Your task to perform on an android device: turn on wifi Image 0: 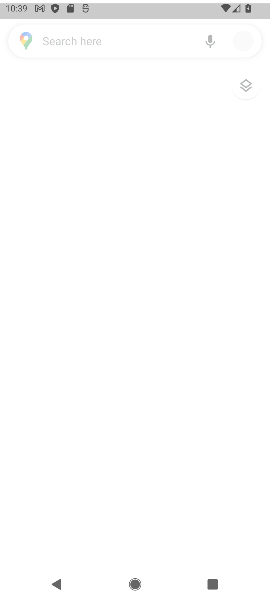
Step 0: press home button
Your task to perform on an android device: turn on wifi Image 1: 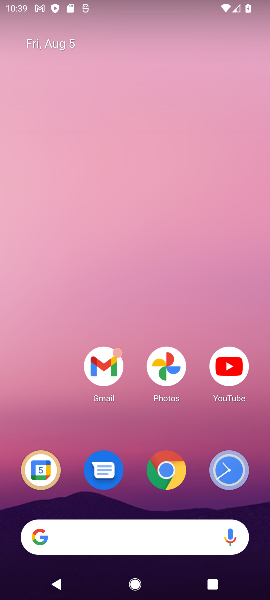
Step 1: drag from (114, 532) to (90, 239)
Your task to perform on an android device: turn on wifi Image 2: 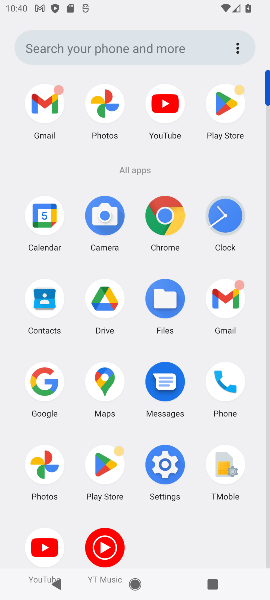
Step 2: click (163, 442)
Your task to perform on an android device: turn on wifi Image 3: 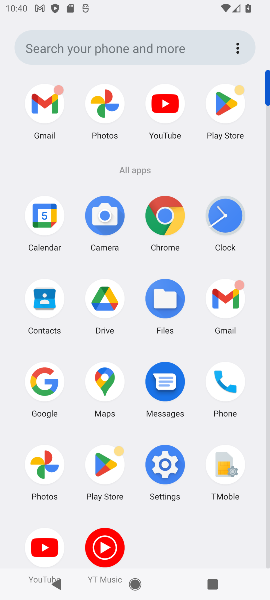
Step 3: click (164, 454)
Your task to perform on an android device: turn on wifi Image 4: 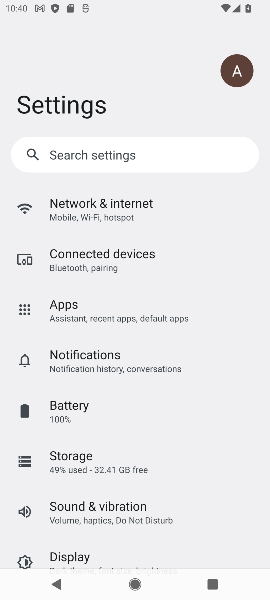
Step 4: click (102, 216)
Your task to perform on an android device: turn on wifi Image 5: 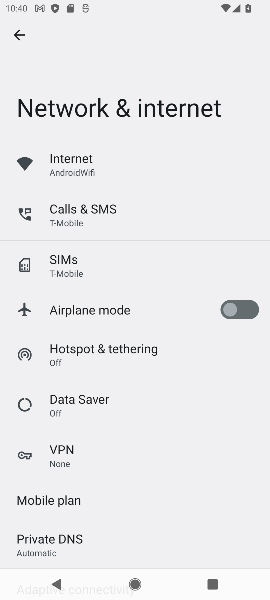
Step 5: click (78, 163)
Your task to perform on an android device: turn on wifi Image 6: 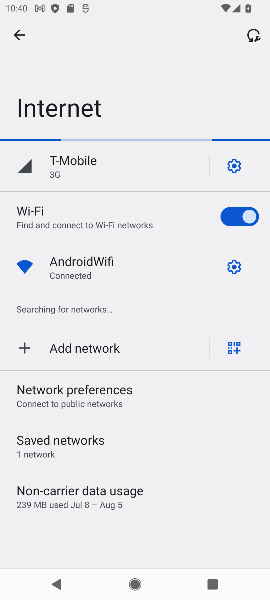
Step 6: task complete